Your task to perform on an android device: turn on data saver in the chrome app Image 0: 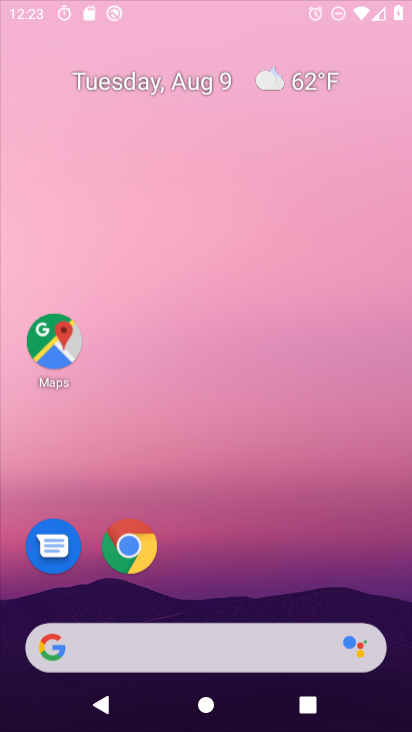
Step 0: press home button
Your task to perform on an android device: turn on data saver in the chrome app Image 1: 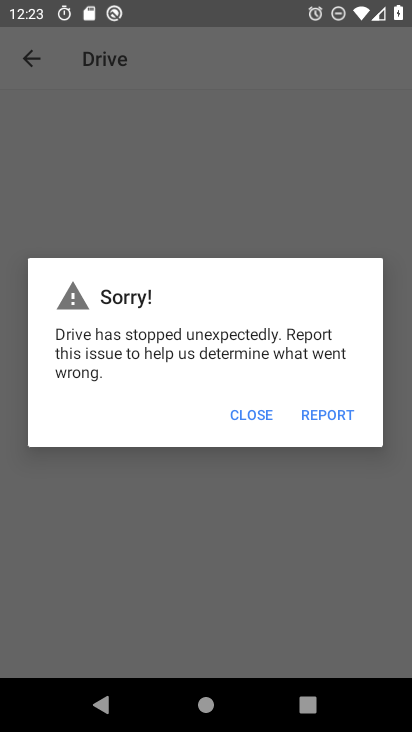
Step 1: drag from (214, 607) to (220, 53)
Your task to perform on an android device: turn on data saver in the chrome app Image 2: 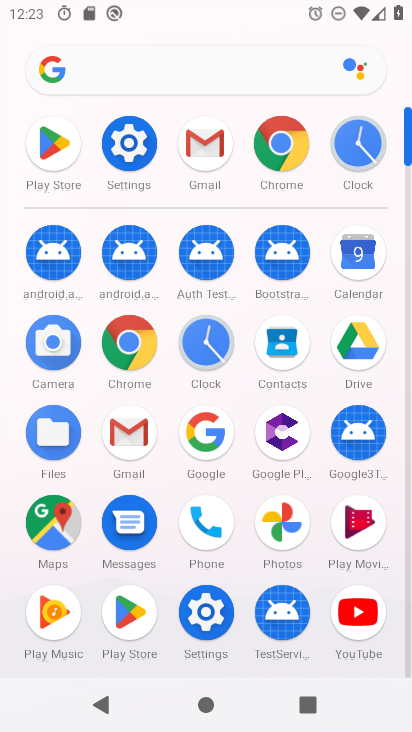
Step 2: click (276, 137)
Your task to perform on an android device: turn on data saver in the chrome app Image 3: 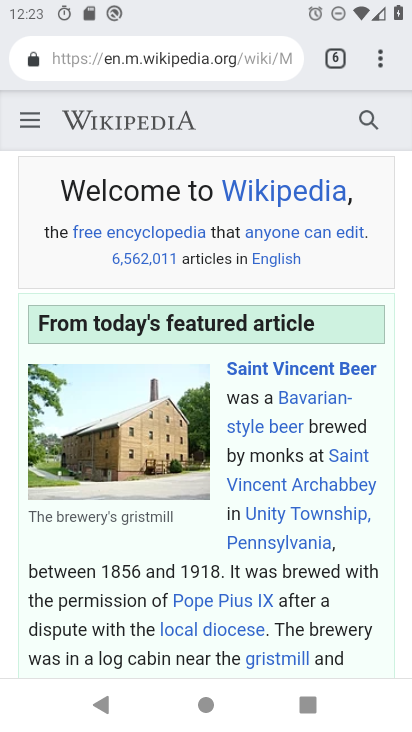
Step 3: click (378, 55)
Your task to perform on an android device: turn on data saver in the chrome app Image 4: 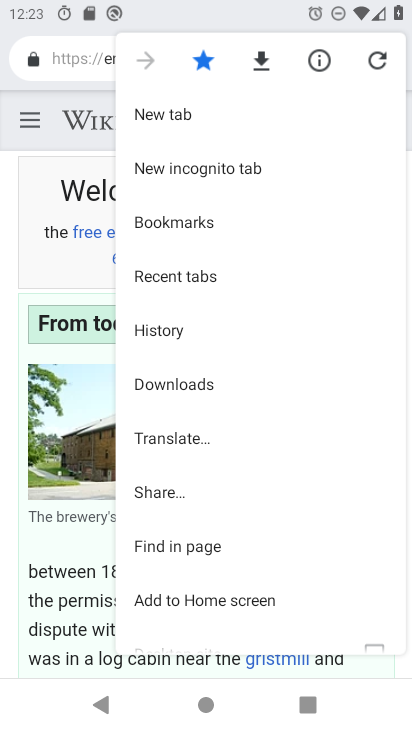
Step 4: drag from (272, 584) to (306, 108)
Your task to perform on an android device: turn on data saver in the chrome app Image 5: 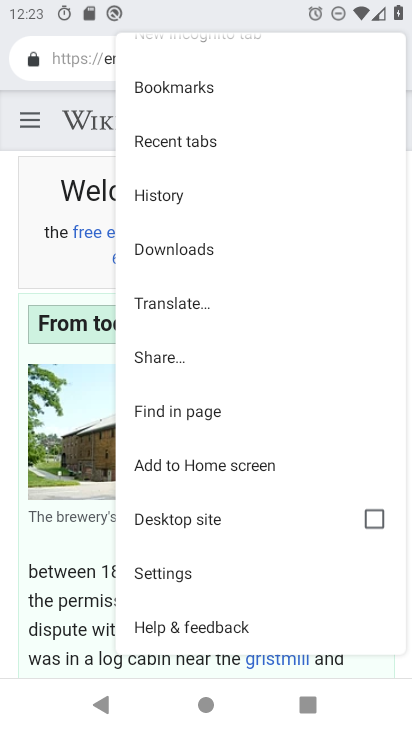
Step 5: click (196, 575)
Your task to perform on an android device: turn on data saver in the chrome app Image 6: 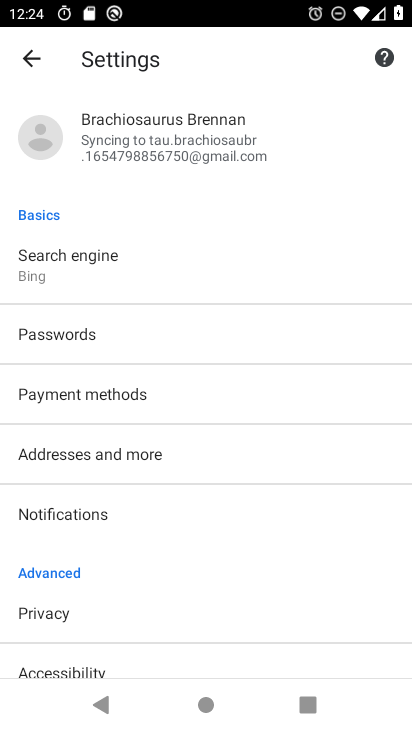
Step 6: drag from (147, 630) to (187, 85)
Your task to perform on an android device: turn on data saver in the chrome app Image 7: 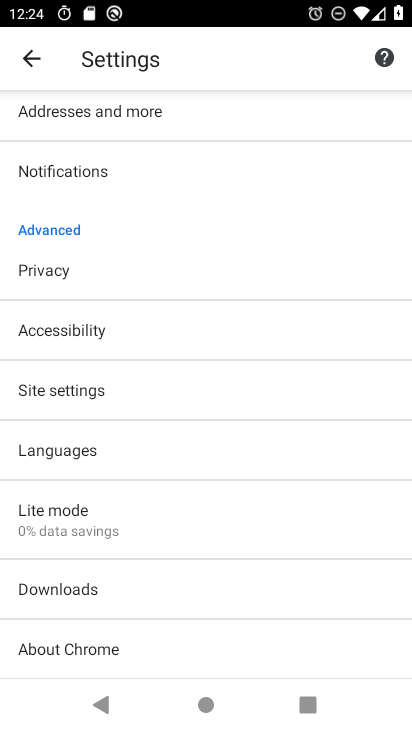
Step 7: click (107, 513)
Your task to perform on an android device: turn on data saver in the chrome app Image 8: 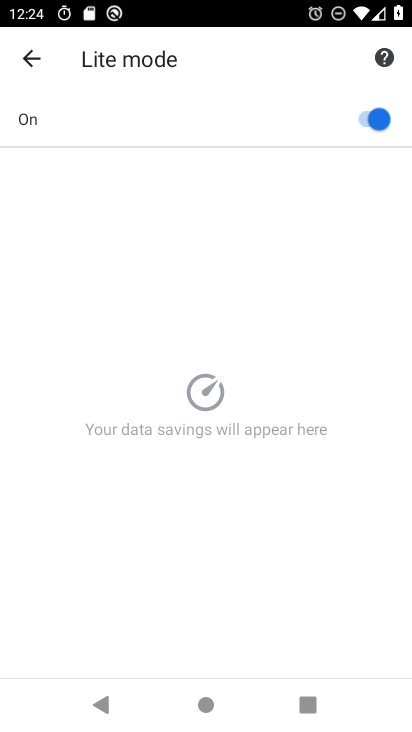
Step 8: task complete